Your task to perform on an android device: turn off priority inbox in the gmail app Image 0: 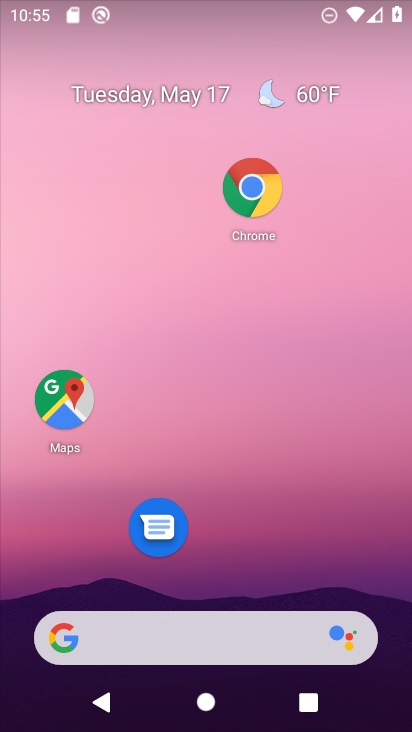
Step 0: drag from (317, 521) to (297, 78)
Your task to perform on an android device: turn off priority inbox in the gmail app Image 1: 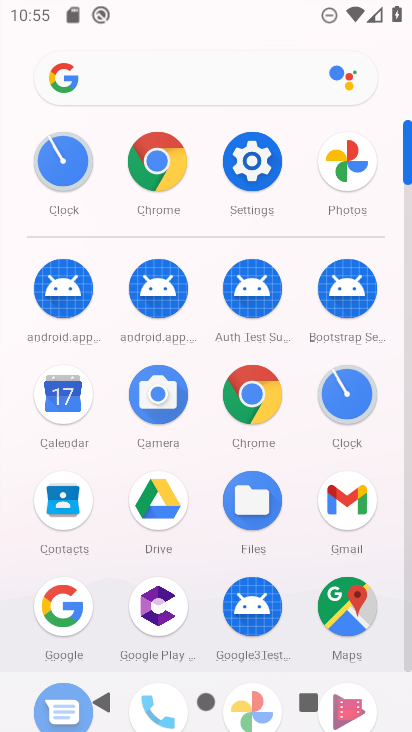
Step 1: click (339, 495)
Your task to perform on an android device: turn off priority inbox in the gmail app Image 2: 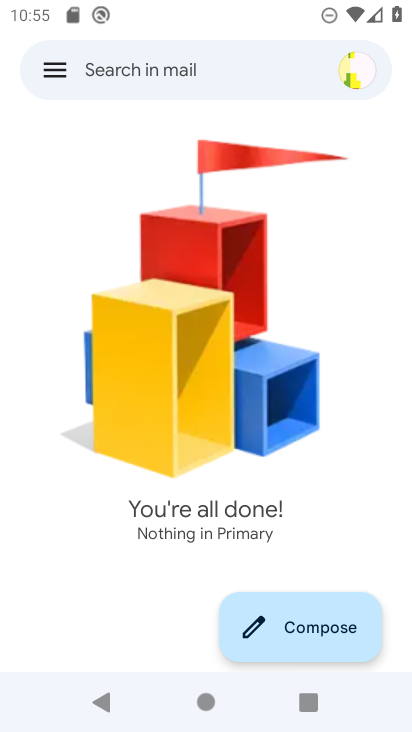
Step 2: click (55, 52)
Your task to perform on an android device: turn off priority inbox in the gmail app Image 3: 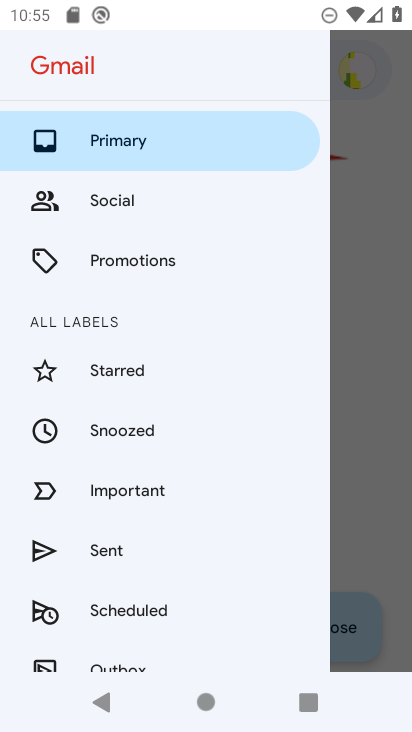
Step 3: drag from (195, 590) to (167, 364)
Your task to perform on an android device: turn off priority inbox in the gmail app Image 4: 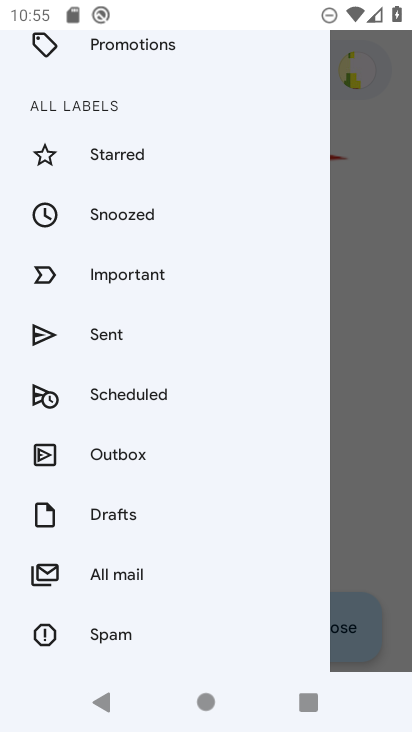
Step 4: drag from (194, 584) to (169, 334)
Your task to perform on an android device: turn off priority inbox in the gmail app Image 5: 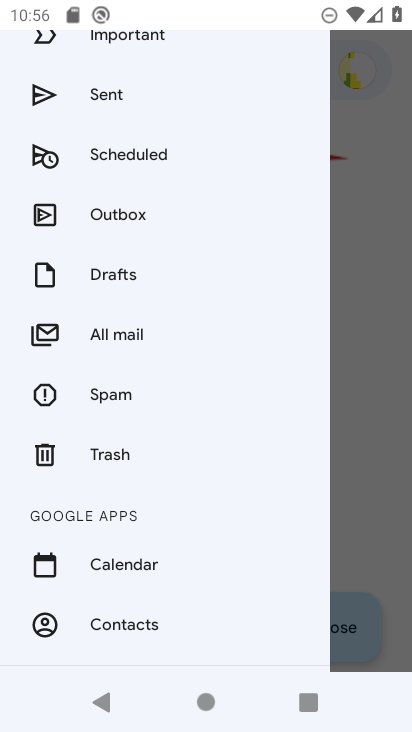
Step 5: drag from (254, 548) to (154, 121)
Your task to perform on an android device: turn off priority inbox in the gmail app Image 6: 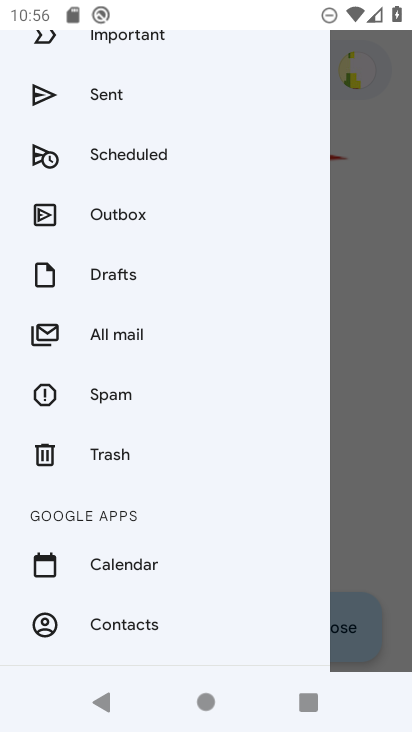
Step 6: drag from (148, 618) to (131, 251)
Your task to perform on an android device: turn off priority inbox in the gmail app Image 7: 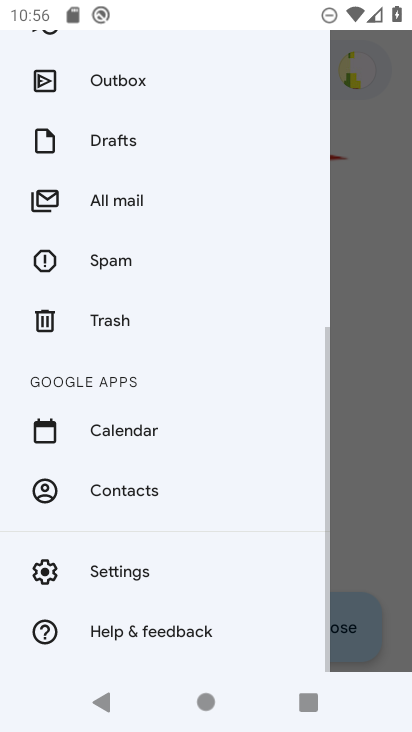
Step 7: click (163, 574)
Your task to perform on an android device: turn off priority inbox in the gmail app Image 8: 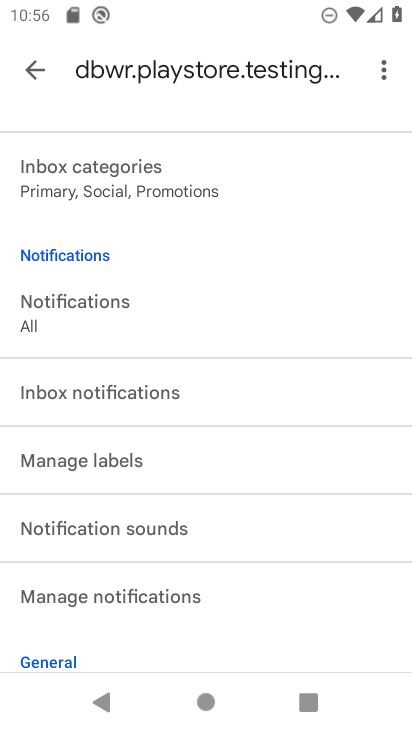
Step 8: click (181, 326)
Your task to perform on an android device: turn off priority inbox in the gmail app Image 9: 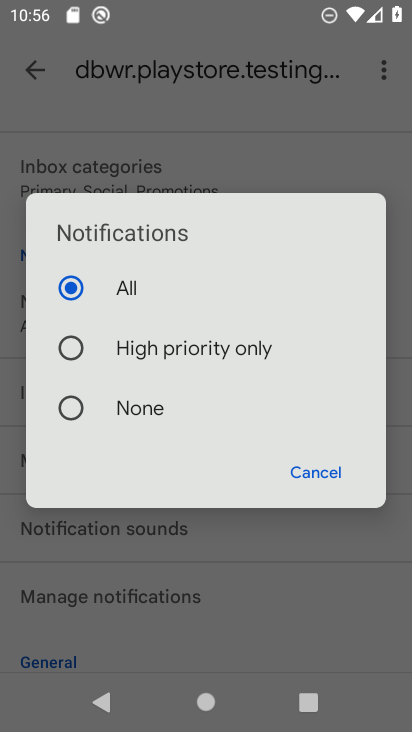
Step 9: click (230, 330)
Your task to perform on an android device: turn off priority inbox in the gmail app Image 10: 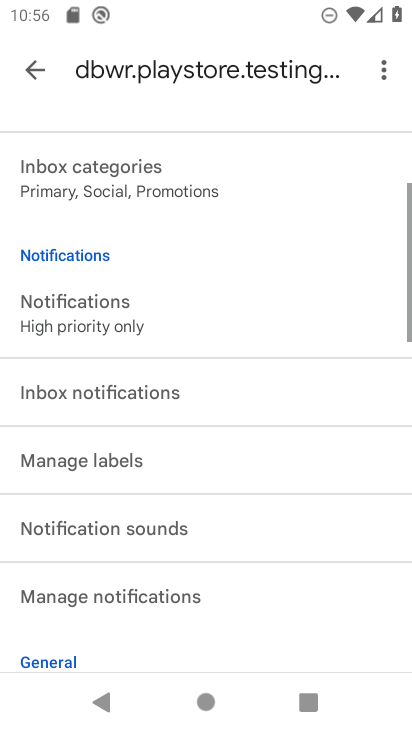
Step 10: task complete